Your task to perform on an android device: choose inbox layout in the gmail app Image 0: 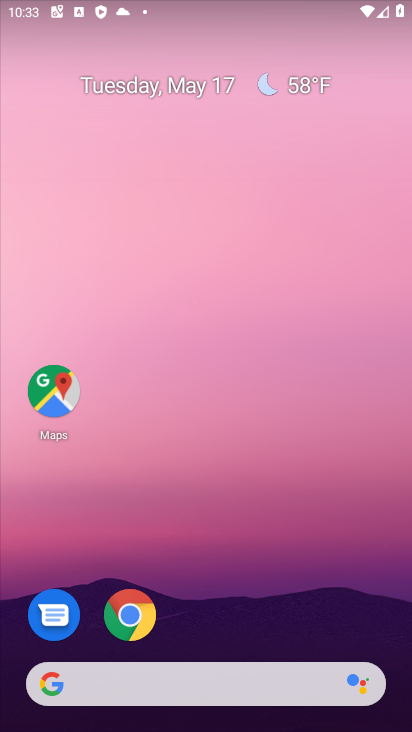
Step 0: drag from (390, 645) to (376, 163)
Your task to perform on an android device: choose inbox layout in the gmail app Image 1: 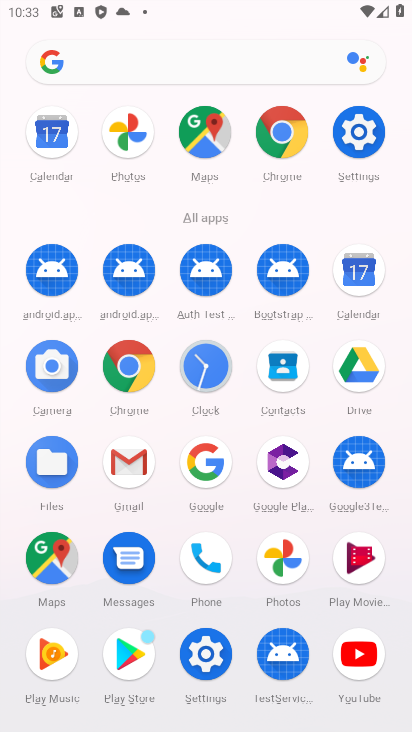
Step 1: click (127, 458)
Your task to perform on an android device: choose inbox layout in the gmail app Image 2: 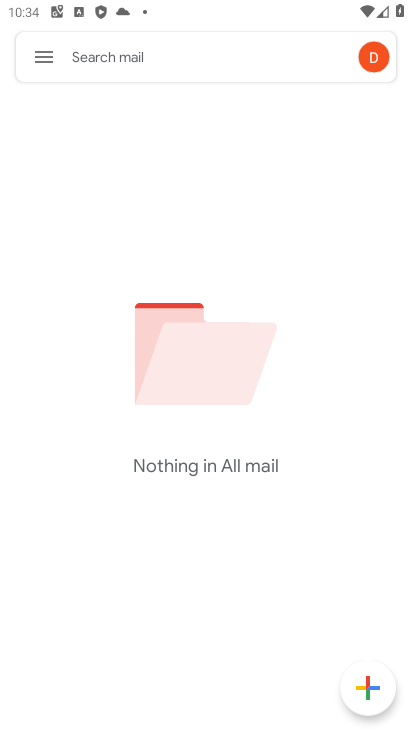
Step 2: click (43, 55)
Your task to perform on an android device: choose inbox layout in the gmail app Image 3: 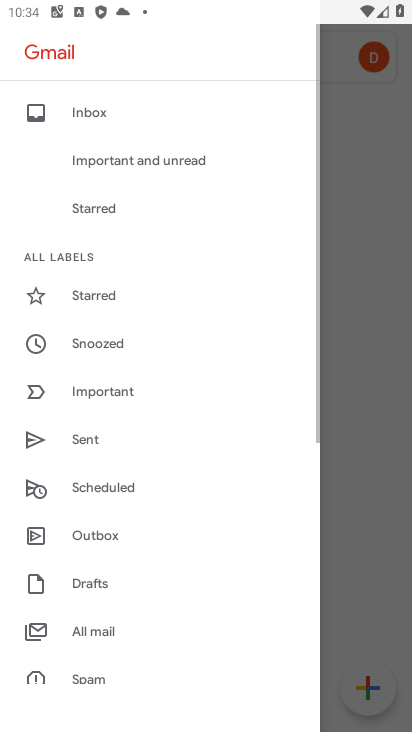
Step 3: drag from (216, 619) to (207, 212)
Your task to perform on an android device: choose inbox layout in the gmail app Image 4: 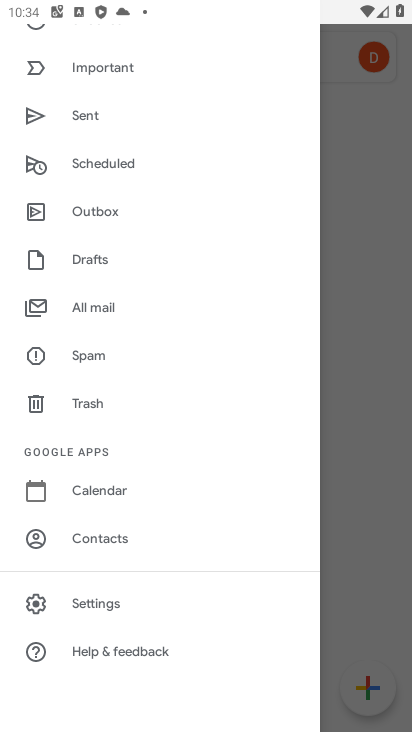
Step 4: click (102, 599)
Your task to perform on an android device: choose inbox layout in the gmail app Image 5: 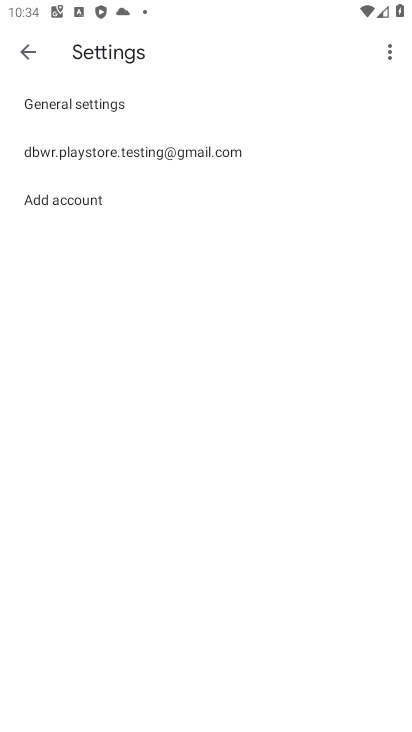
Step 5: click (130, 140)
Your task to perform on an android device: choose inbox layout in the gmail app Image 6: 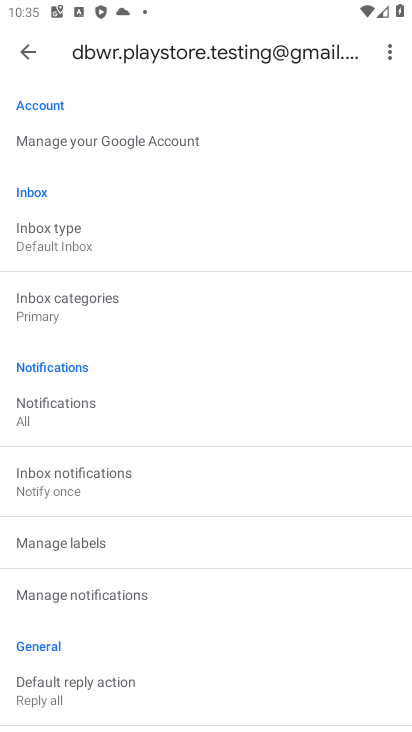
Step 6: click (48, 242)
Your task to perform on an android device: choose inbox layout in the gmail app Image 7: 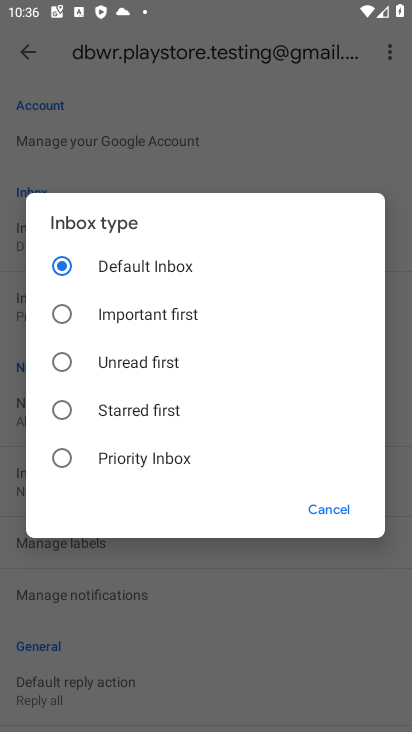
Step 7: click (57, 407)
Your task to perform on an android device: choose inbox layout in the gmail app Image 8: 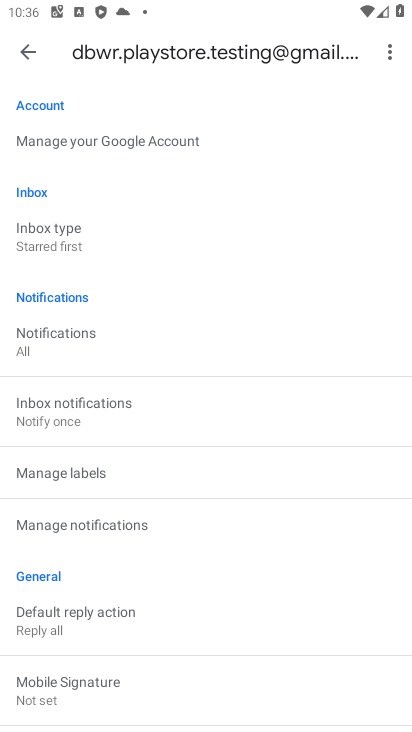
Step 8: task complete